Your task to perform on an android device: toggle data saver in the chrome app Image 0: 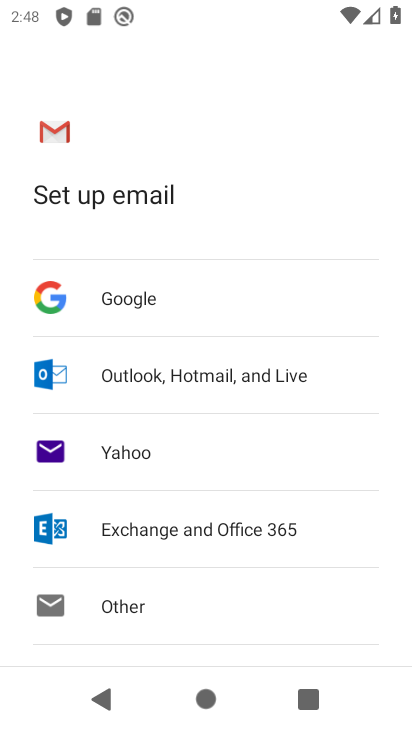
Step 0: click (323, 708)
Your task to perform on an android device: toggle data saver in the chrome app Image 1: 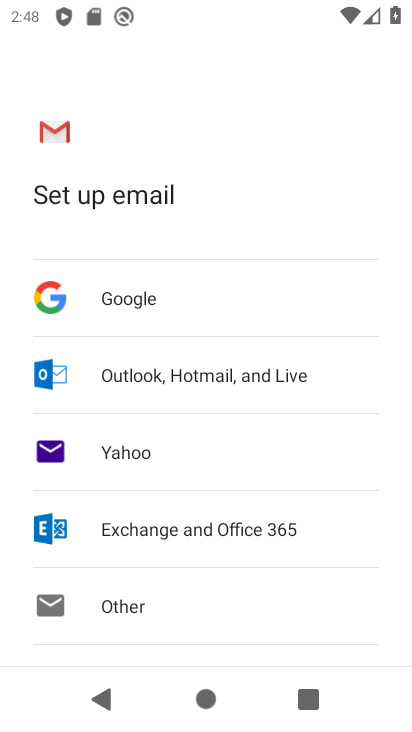
Step 1: press home button
Your task to perform on an android device: toggle data saver in the chrome app Image 2: 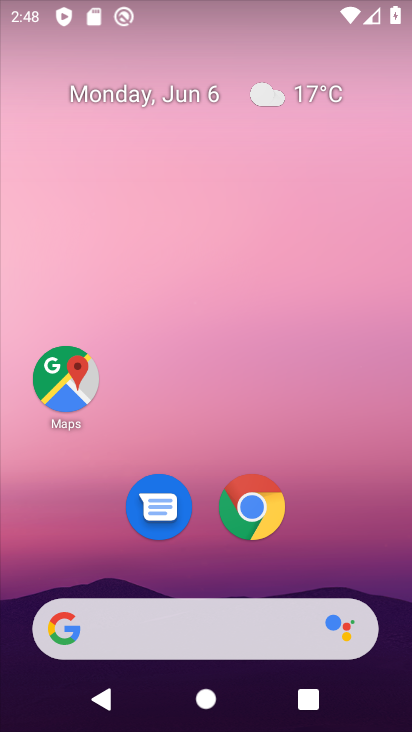
Step 2: click (242, 523)
Your task to perform on an android device: toggle data saver in the chrome app Image 3: 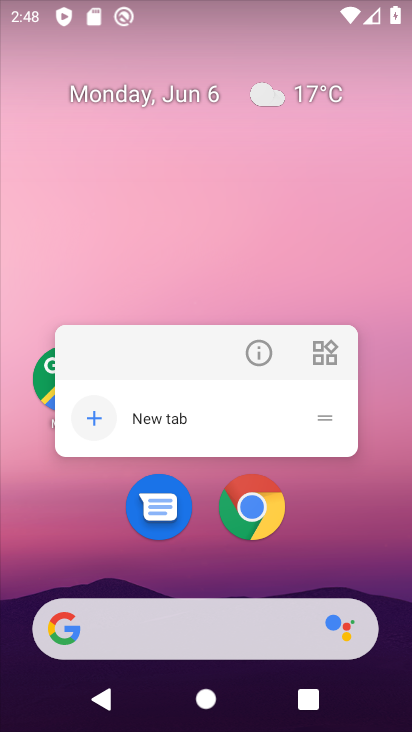
Step 3: click (247, 517)
Your task to perform on an android device: toggle data saver in the chrome app Image 4: 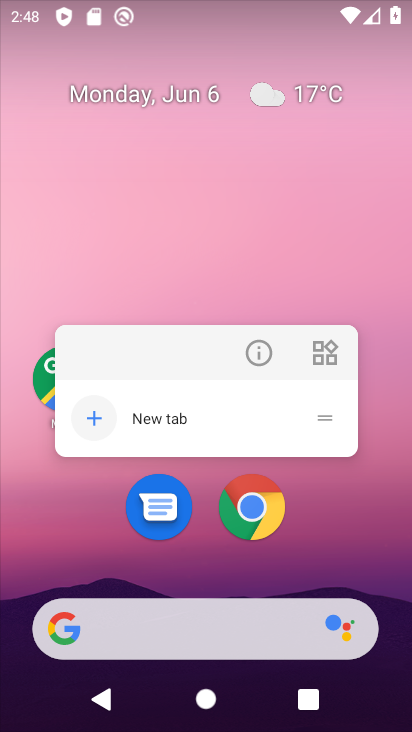
Step 4: click (248, 517)
Your task to perform on an android device: toggle data saver in the chrome app Image 5: 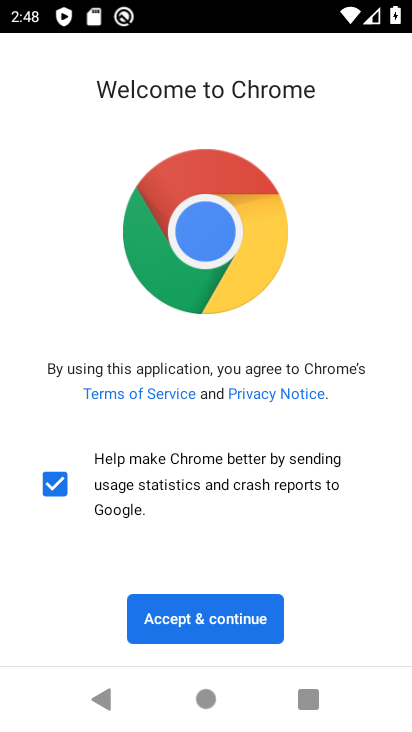
Step 5: click (235, 622)
Your task to perform on an android device: toggle data saver in the chrome app Image 6: 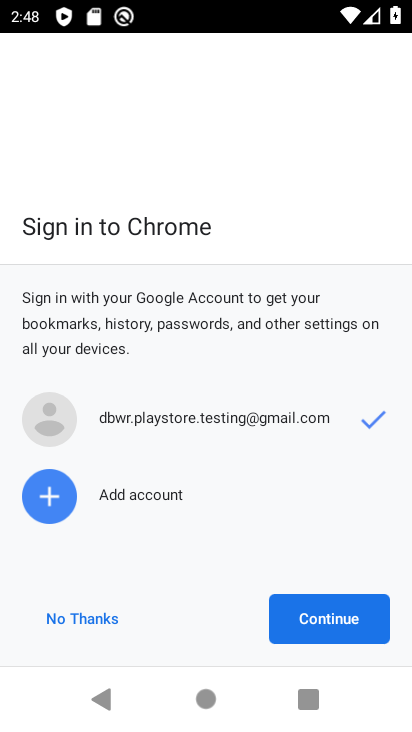
Step 6: click (346, 602)
Your task to perform on an android device: toggle data saver in the chrome app Image 7: 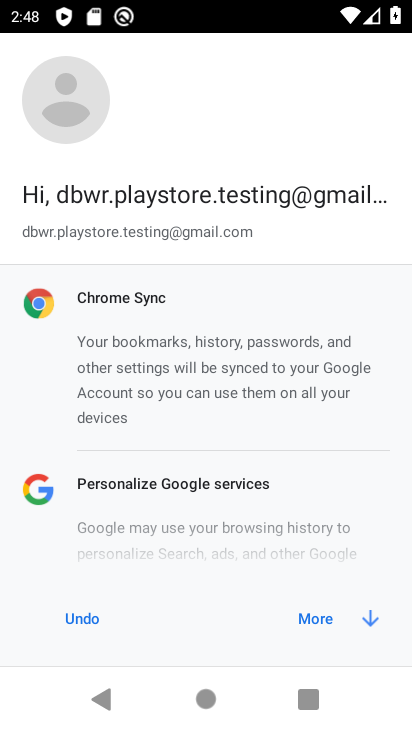
Step 7: click (371, 616)
Your task to perform on an android device: toggle data saver in the chrome app Image 8: 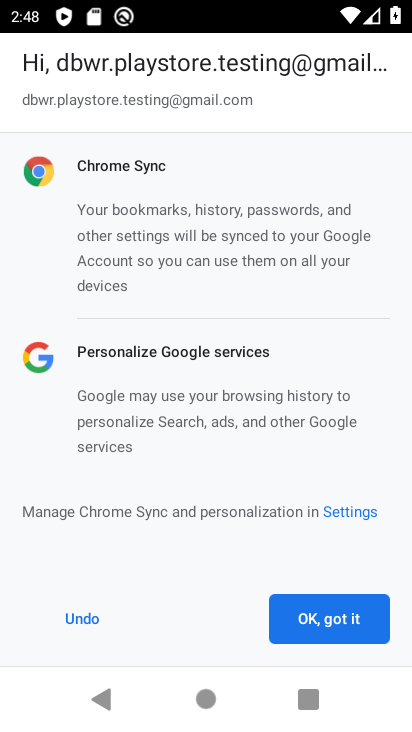
Step 8: click (371, 616)
Your task to perform on an android device: toggle data saver in the chrome app Image 9: 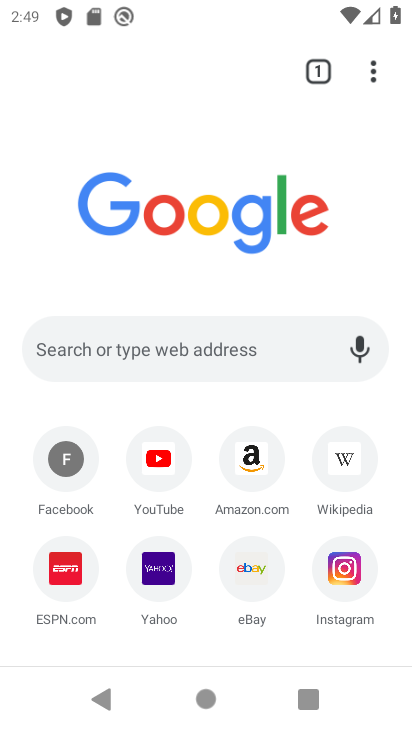
Step 9: drag from (375, 70) to (130, 495)
Your task to perform on an android device: toggle data saver in the chrome app Image 10: 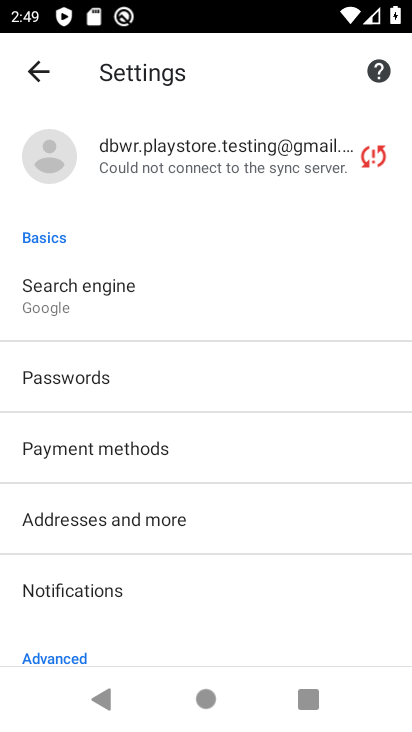
Step 10: drag from (234, 650) to (223, 184)
Your task to perform on an android device: toggle data saver in the chrome app Image 11: 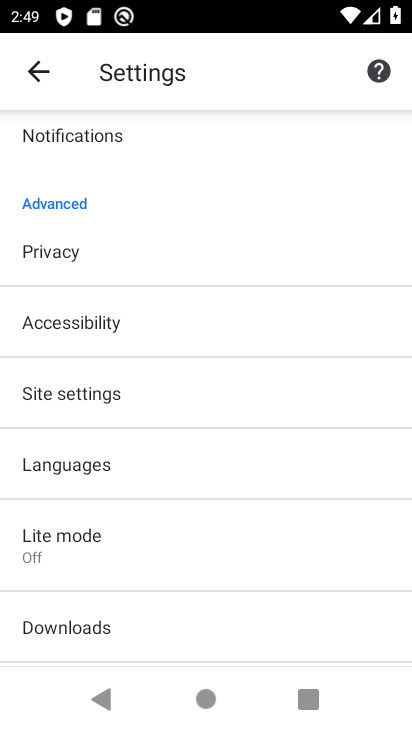
Step 11: click (122, 556)
Your task to perform on an android device: toggle data saver in the chrome app Image 12: 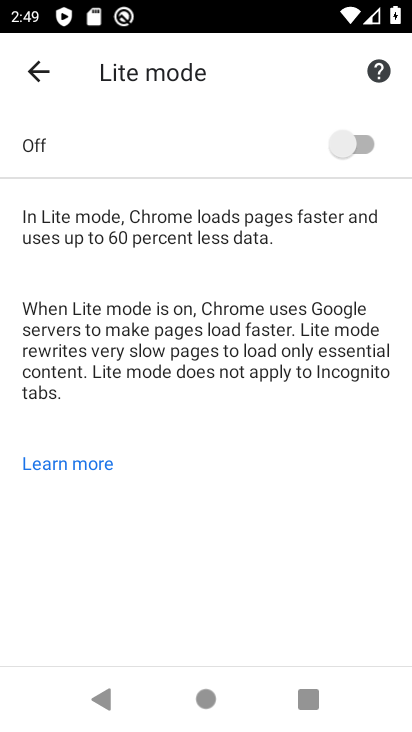
Step 12: click (355, 146)
Your task to perform on an android device: toggle data saver in the chrome app Image 13: 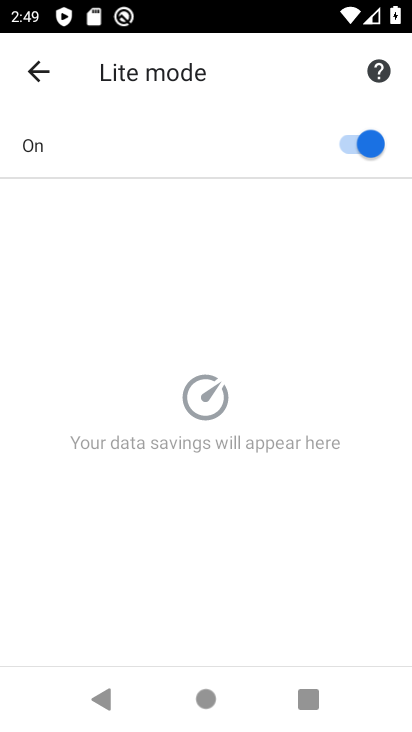
Step 13: task complete